Your task to perform on an android device: What's on my calendar today? Image 0: 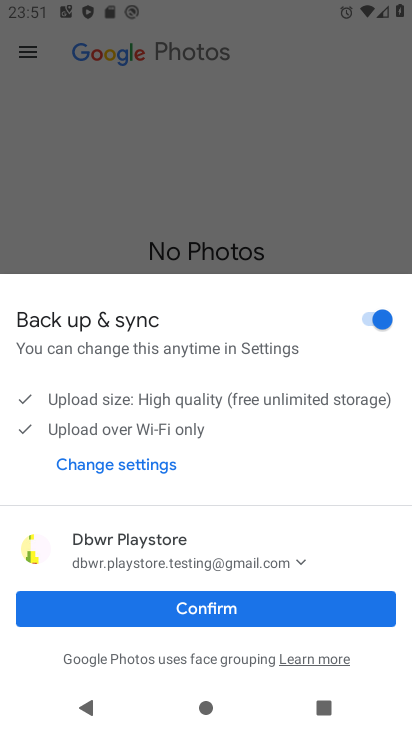
Step 0: press home button
Your task to perform on an android device: What's on my calendar today? Image 1: 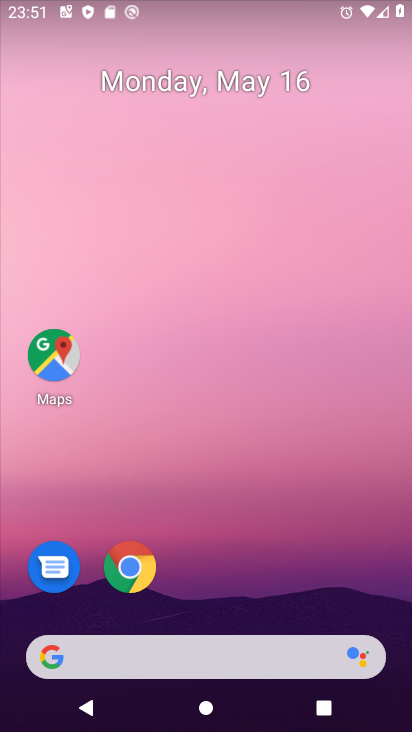
Step 1: drag from (282, 551) to (274, 121)
Your task to perform on an android device: What's on my calendar today? Image 2: 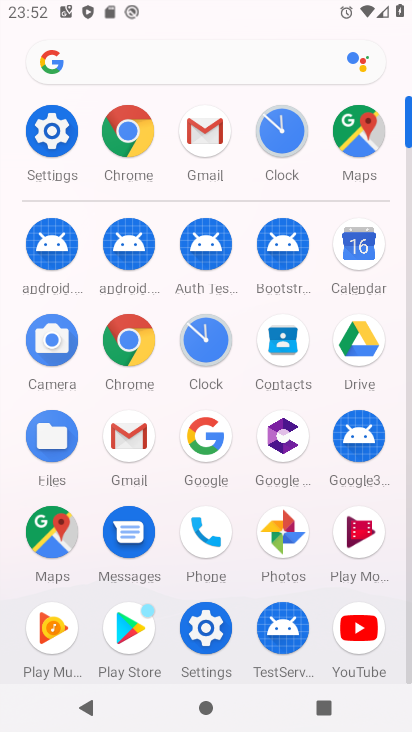
Step 2: click (351, 251)
Your task to perform on an android device: What's on my calendar today? Image 3: 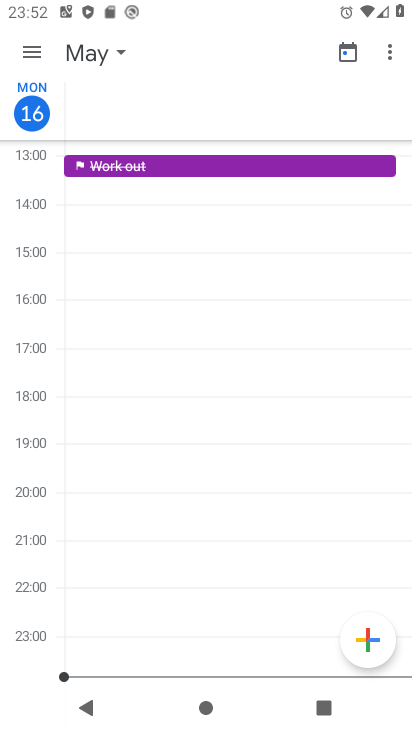
Step 3: task complete